Your task to perform on an android device: allow cookies in the chrome app Image 0: 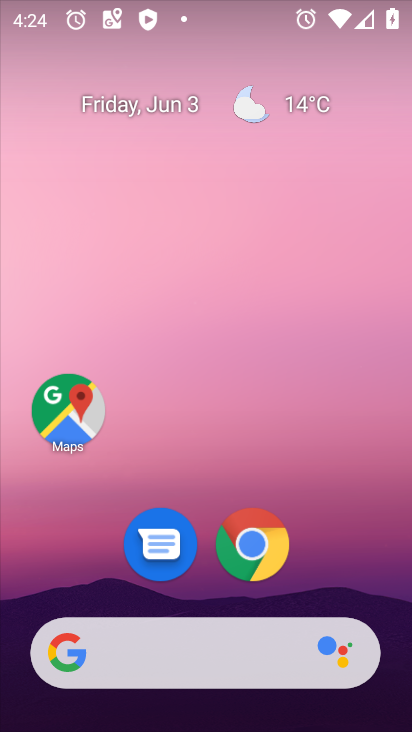
Step 0: click (388, 609)
Your task to perform on an android device: allow cookies in the chrome app Image 1: 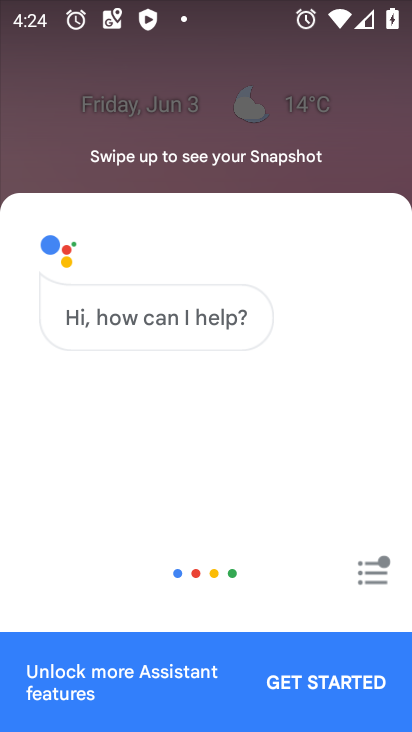
Step 1: click (245, 537)
Your task to perform on an android device: allow cookies in the chrome app Image 2: 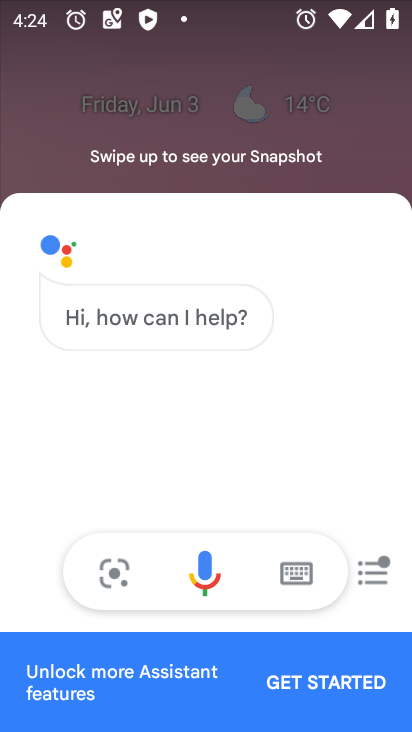
Step 2: press back button
Your task to perform on an android device: allow cookies in the chrome app Image 3: 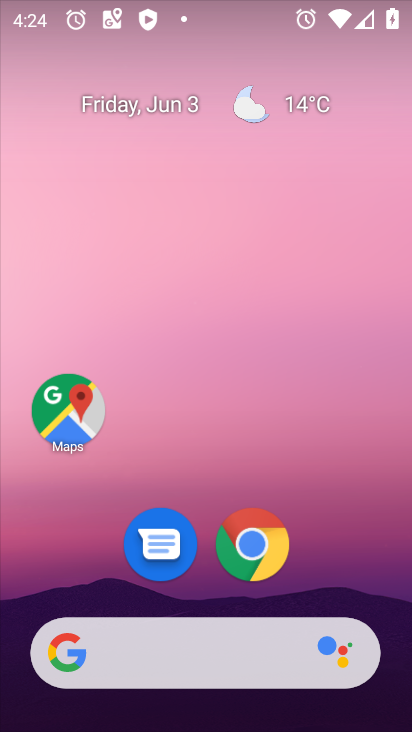
Step 3: click (256, 546)
Your task to perform on an android device: allow cookies in the chrome app Image 4: 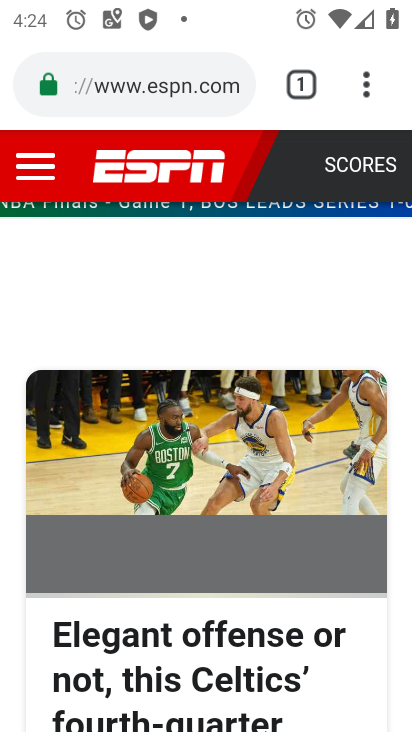
Step 4: click (363, 93)
Your task to perform on an android device: allow cookies in the chrome app Image 5: 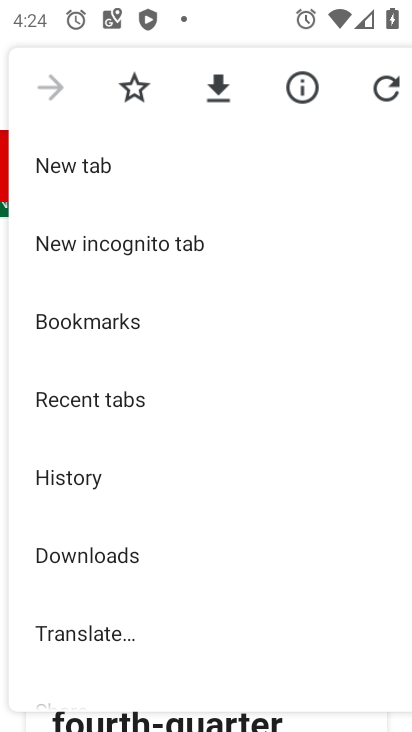
Step 5: drag from (225, 540) to (254, 133)
Your task to perform on an android device: allow cookies in the chrome app Image 6: 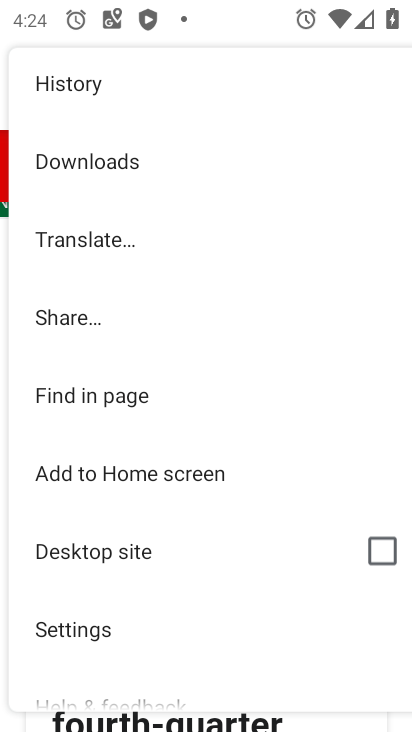
Step 6: click (66, 623)
Your task to perform on an android device: allow cookies in the chrome app Image 7: 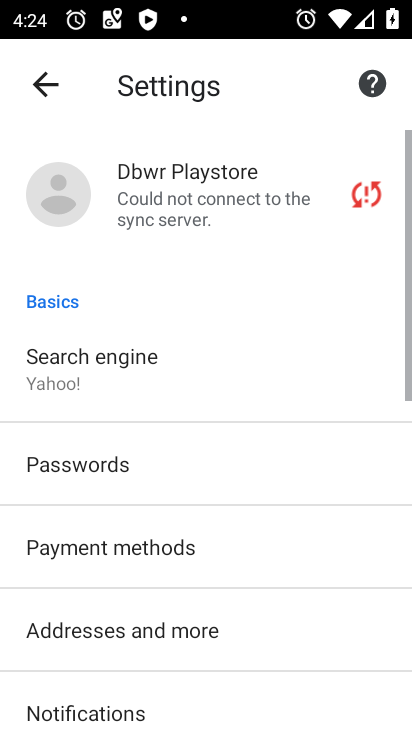
Step 7: drag from (262, 626) to (175, 33)
Your task to perform on an android device: allow cookies in the chrome app Image 8: 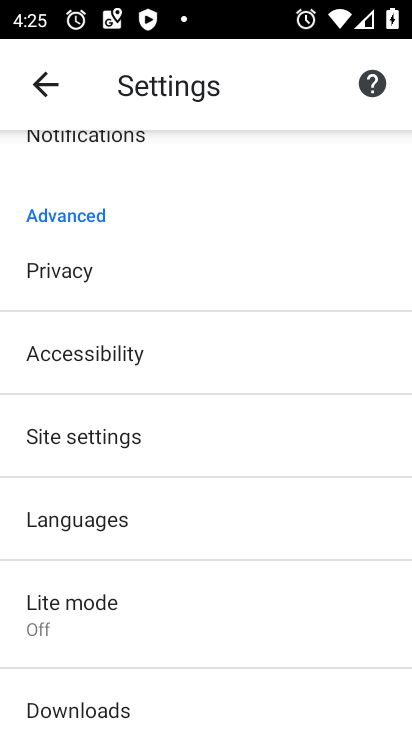
Step 8: drag from (194, 563) to (193, 497)
Your task to perform on an android device: allow cookies in the chrome app Image 9: 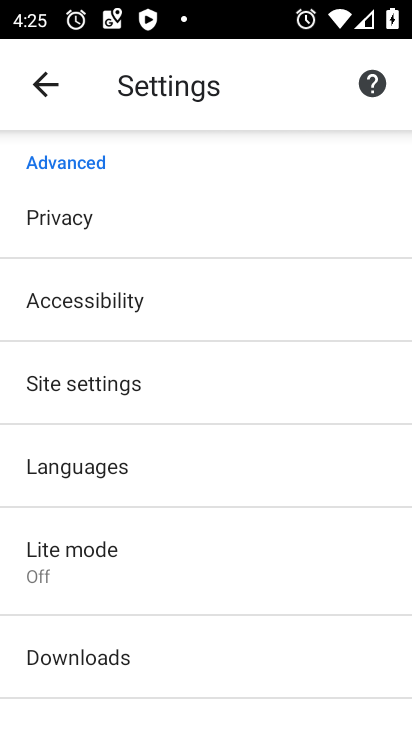
Step 9: click (99, 388)
Your task to perform on an android device: allow cookies in the chrome app Image 10: 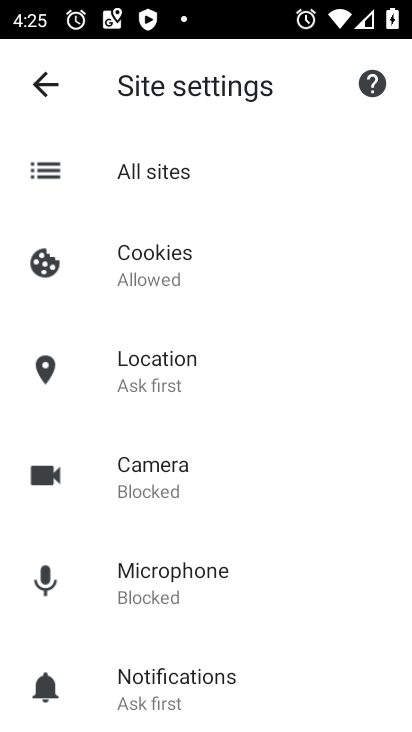
Step 10: task complete